Your task to perform on an android device: Go to Android settings Image 0: 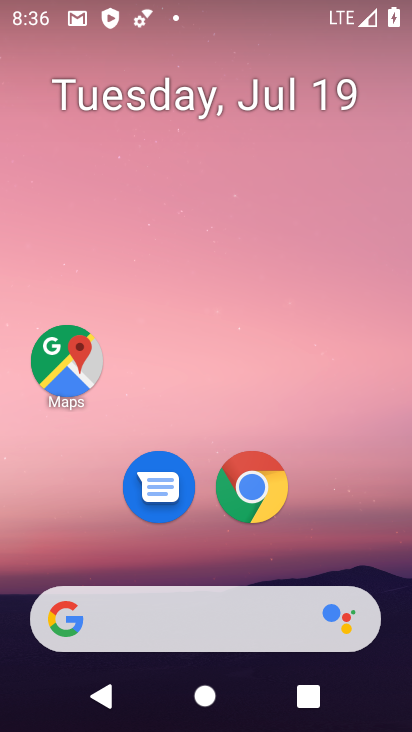
Step 0: drag from (155, 549) to (267, 13)
Your task to perform on an android device: Go to Android settings Image 1: 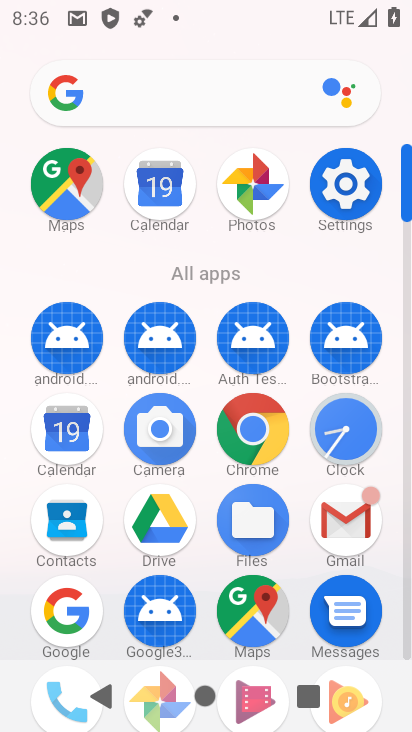
Step 1: click (350, 185)
Your task to perform on an android device: Go to Android settings Image 2: 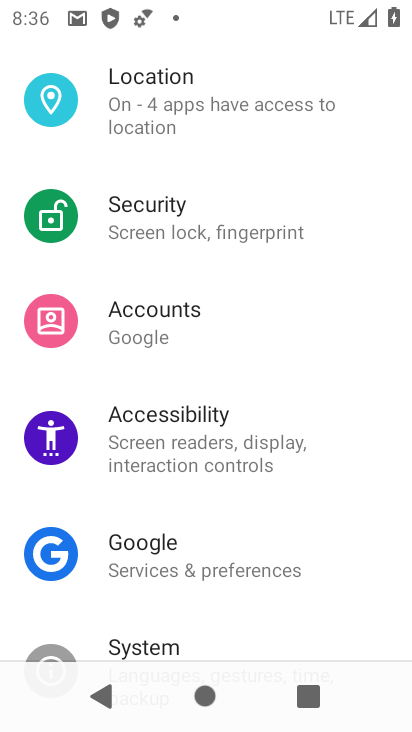
Step 2: drag from (153, 611) to (273, 0)
Your task to perform on an android device: Go to Android settings Image 3: 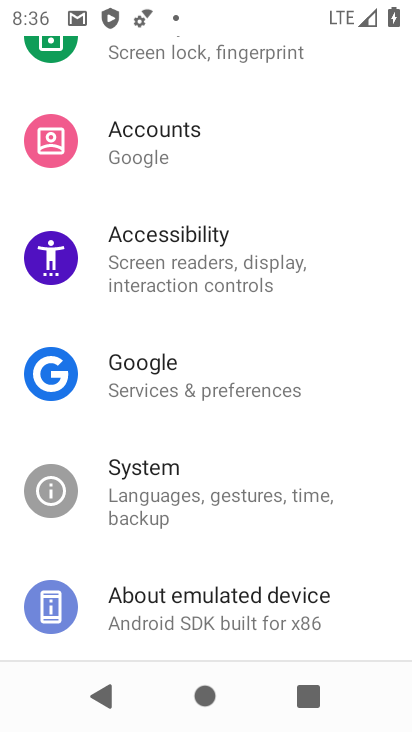
Step 3: drag from (173, 597) to (243, 20)
Your task to perform on an android device: Go to Android settings Image 4: 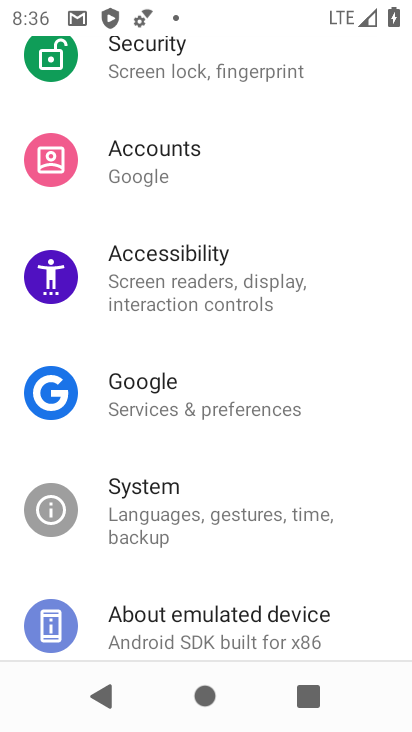
Step 4: click (153, 623)
Your task to perform on an android device: Go to Android settings Image 5: 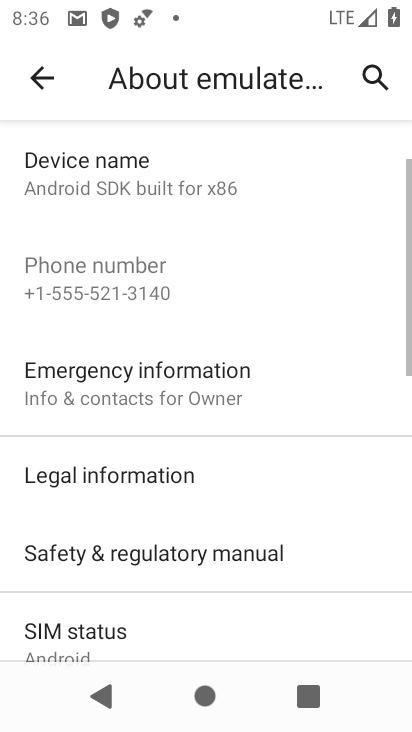
Step 5: drag from (152, 604) to (272, 39)
Your task to perform on an android device: Go to Android settings Image 6: 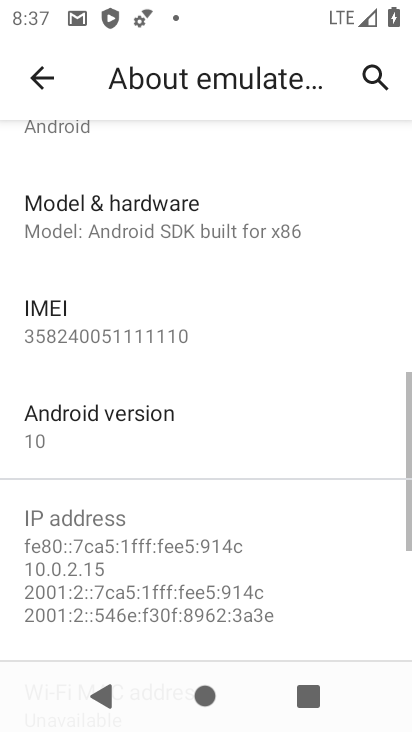
Step 6: click (120, 441)
Your task to perform on an android device: Go to Android settings Image 7: 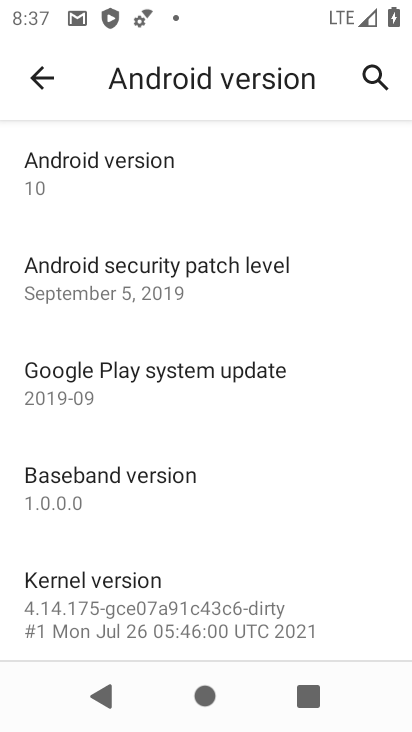
Step 7: task complete